Your task to perform on an android device: Open my contact list Image 0: 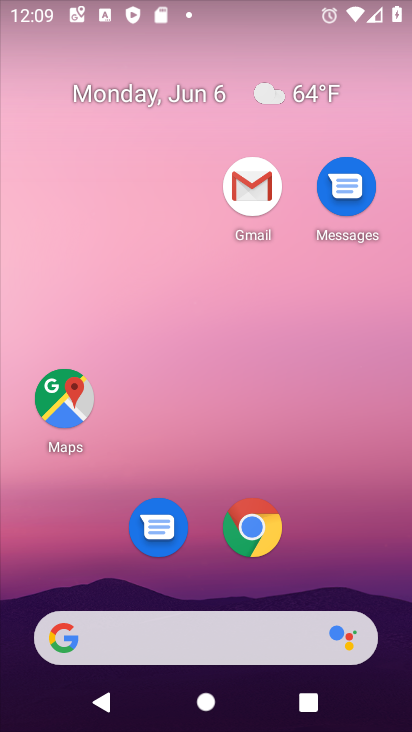
Step 0: drag from (314, 572) to (321, 86)
Your task to perform on an android device: Open my contact list Image 1: 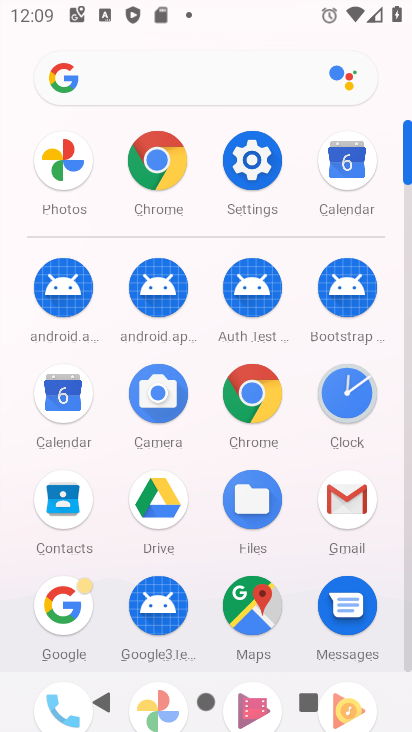
Step 1: click (69, 495)
Your task to perform on an android device: Open my contact list Image 2: 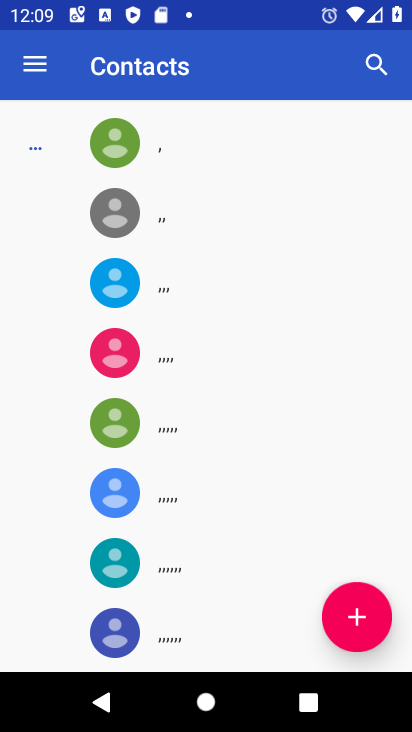
Step 2: task complete